Your task to perform on an android device: Is it going to rain this weekend? Image 0: 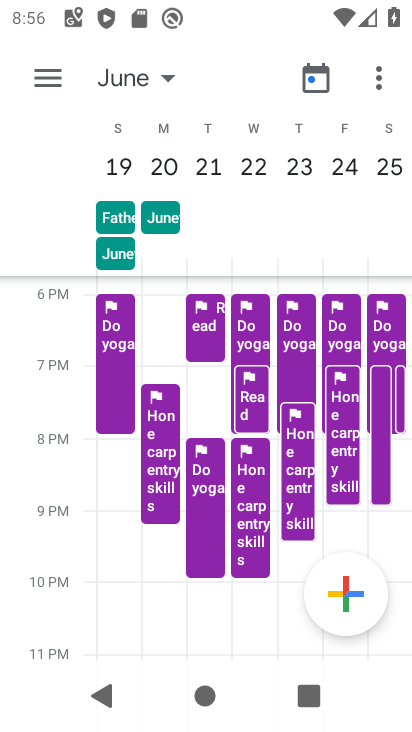
Step 0: press home button
Your task to perform on an android device: Is it going to rain this weekend? Image 1: 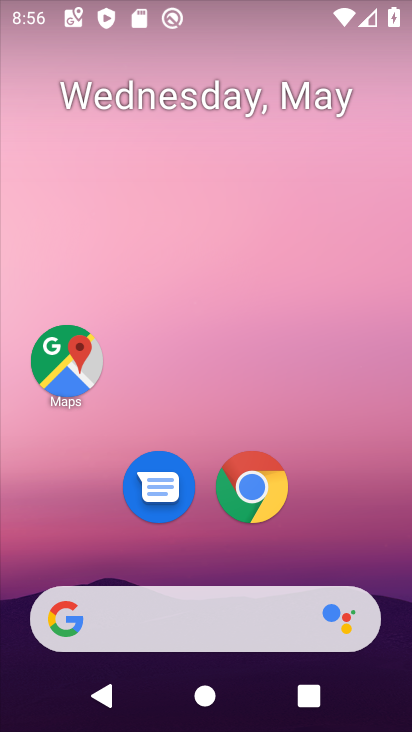
Step 1: drag from (355, 536) to (188, 1)
Your task to perform on an android device: Is it going to rain this weekend? Image 2: 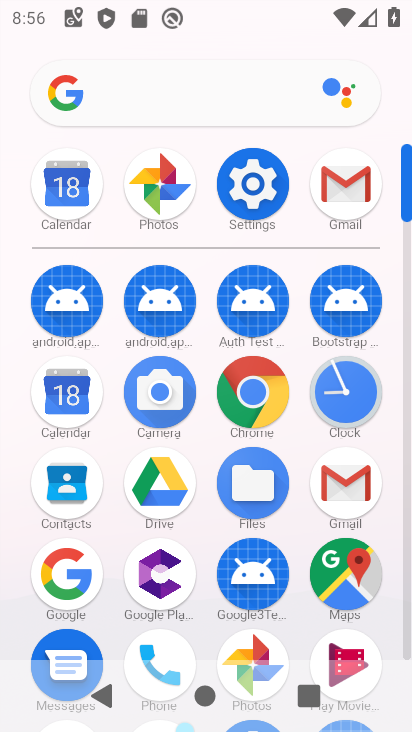
Step 2: click (168, 90)
Your task to perform on an android device: Is it going to rain this weekend? Image 3: 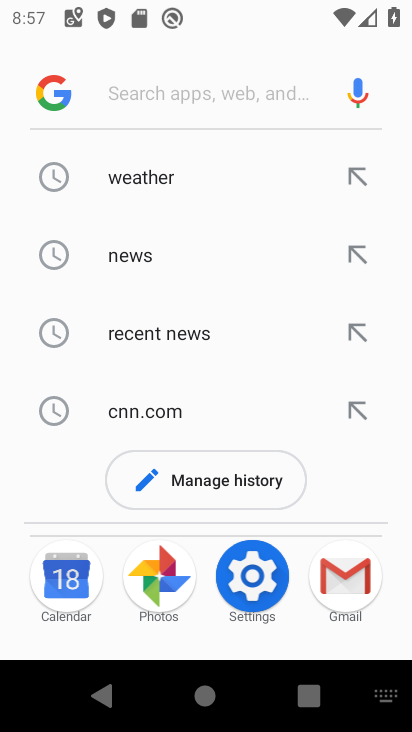
Step 3: click (147, 174)
Your task to perform on an android device: Is it going to rain this weekend? Image 4: 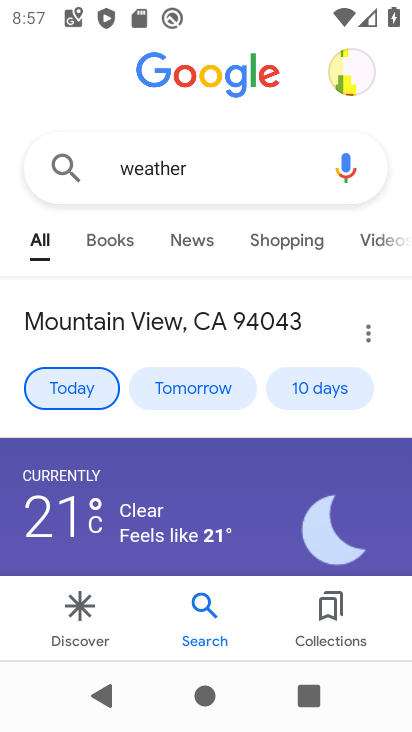
Step 4: click (318, 390)
Your task to perform on an android device: Is it going to rain this weekend? Image 5: 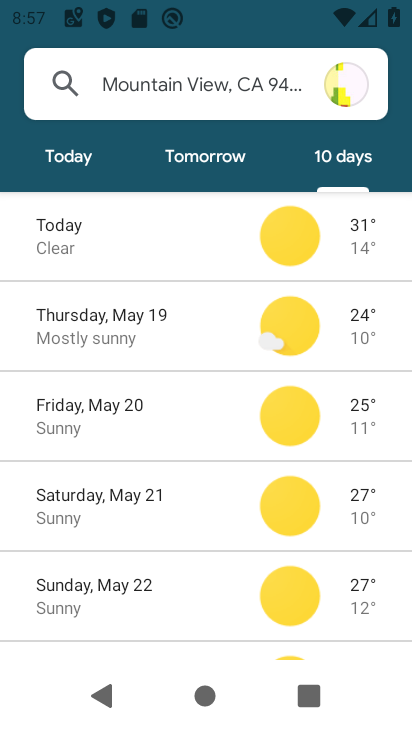
Step 5: task complete